Your task to perform on an android device: Show the shopping cart on ebay. Search for "logitech g pro" on ebay, select the first entry, and add it to the cart. Image 0: 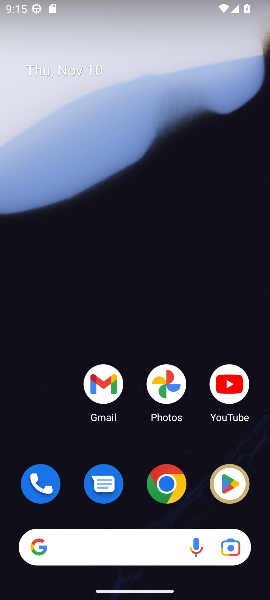
Step 0: click (171, 484)
Your task to perform on an android device: Show the shopping cart on ebay. Search for "logitech g pro" on ebay, select the first entry, and add it to the cart. Image 1: 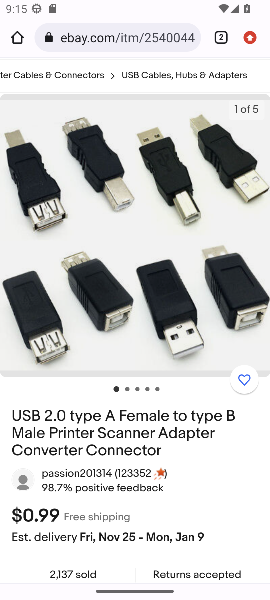
Step 1: drag from (162, 121) to (145, 539)
Your task to perform on an android device: Show the shopping cart on ebay. Search for "logitech g pro" on ebay, select the first entry, and add it to the cart. Image 2: 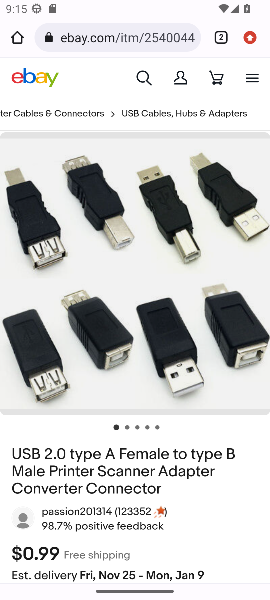
Step 2: drag from (180, 243) to (178, 340)
Your task to perform on an android device: Show the shopping cart on ebay. Search for "logitech g pro" on ebay, select the first entry, and add it to the cart. Image 3: 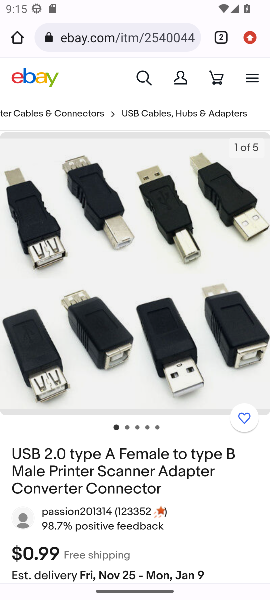
Step 3: click (216, 81)
Your task to perform on an android device: Show the shopping cart on ebay. Search for "logitech g pro" on ebay, select the first entry, and add it to the cart. Image 4: 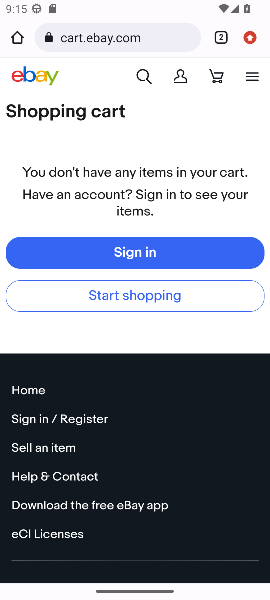
Step 4: click (137, 70)
Your task to perform on an android device: Show the shopping cart on ebay. Search for "logitech g pro" on ebay, select the first entry, and add it to the cart. Image 5: 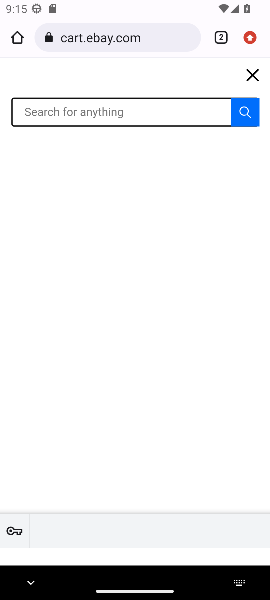
Step 5: type "logitech g pro"
Your task to perform on an android device: Show the shopping cart on ebay. Search for "logitech g pro" on ebay, select the first entry, and add it to the cart. Image 6: 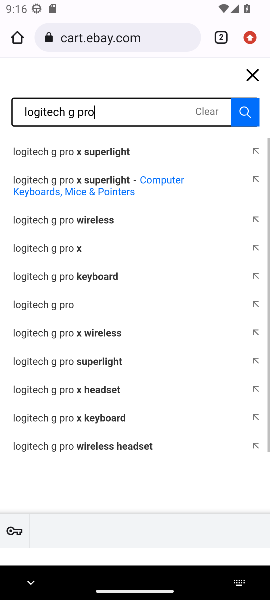
Step 6: click (16, 304)
Your task to perform on an android device: Show the shopping cart on ebay. Search for "logitech g pro" on ebay, select the first entry, and add it to the cart. Image 7: 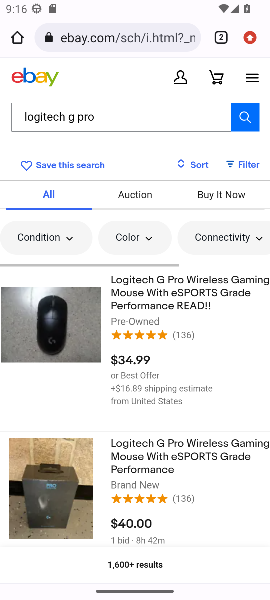
Step 7: click (91, 335)
Your task to perform on an android device: Show the shopping cart on ebay. Search for "logitech g pro" on ebay, select the first entry, and add it to the cart. Image 8: 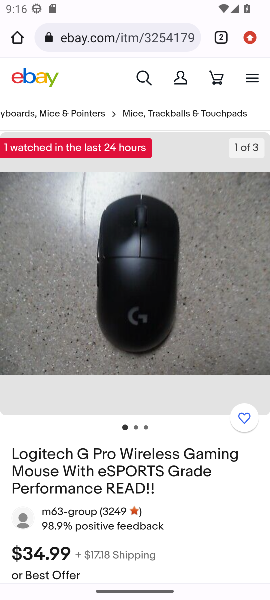
Step 8: drag from (147, 431) to (137, 255)
Your task to perform on an android device: Show the shopping cart on ebay. Search for "logitech g pro" on ebay, select the first entry, and add it to the cart. Image 9: 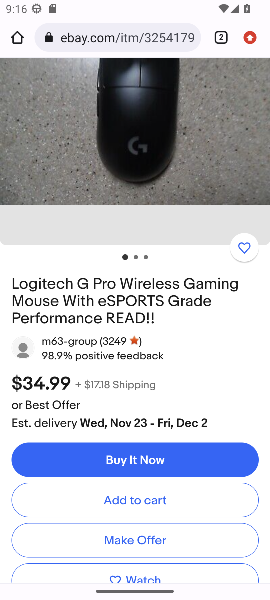
Step 9: click (139, 495)
Your task to perform on an android device: Show the shopping cart on ebay. Search for "logitech g pro" on ebay, select the first entry, and add it to the cart. Image 10: 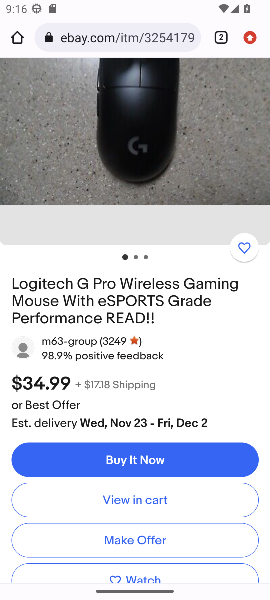
Step 10: task complete